Your task to perform on an android device: Search for sushi restaurants on Maps Image 0: 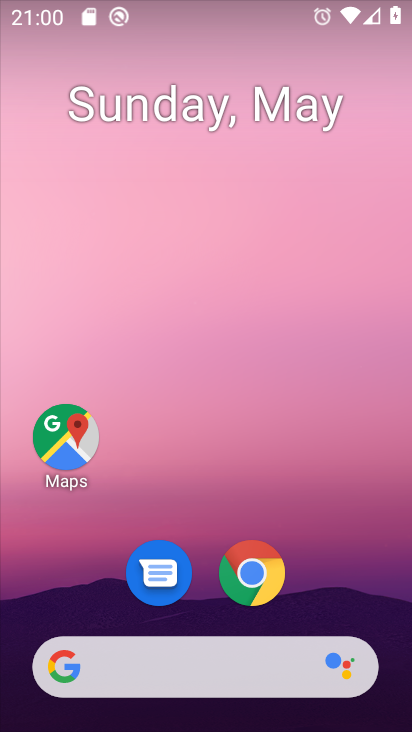
Step 0: click (61, 435)
Your task to perform on an android device: Search for sushi restaurants on Maps Image 1: 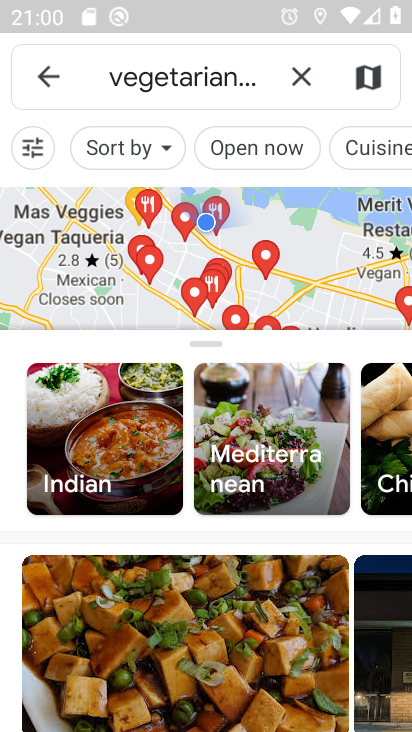
Step 1: click (296, 61)
Your task to perform on an android device: Search for sushi restaurants on Maps Image 2: 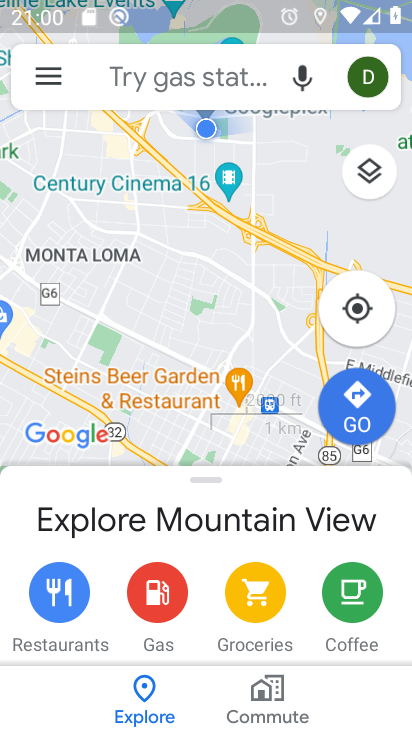
Step 2: click (231, 70)
Your task to perform on an android device: Search for sushi restaurants on Maps Image 3: 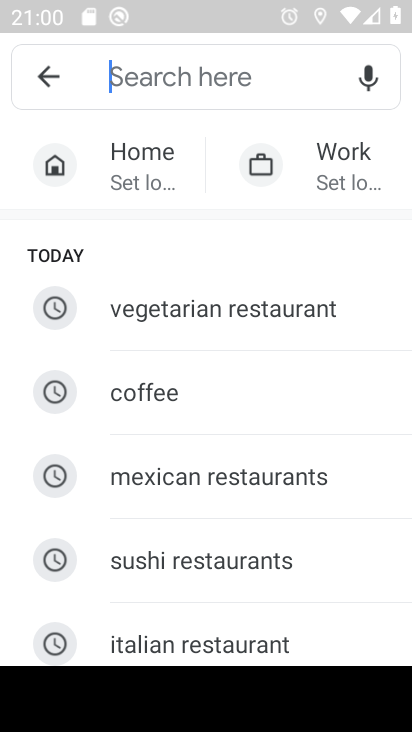
Step 3: click (218, 555)
Your task to perform on an android device: Search for sushi restaurants on Maps Image 4: 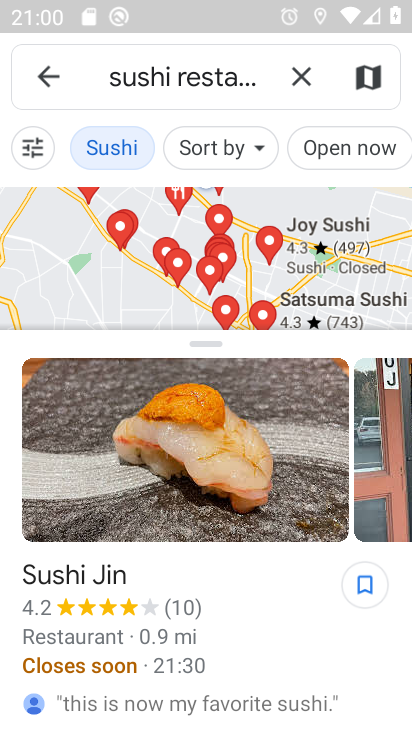
Step 4: task complete